Your task to perform on an android device: Go to Android settings Image 0: 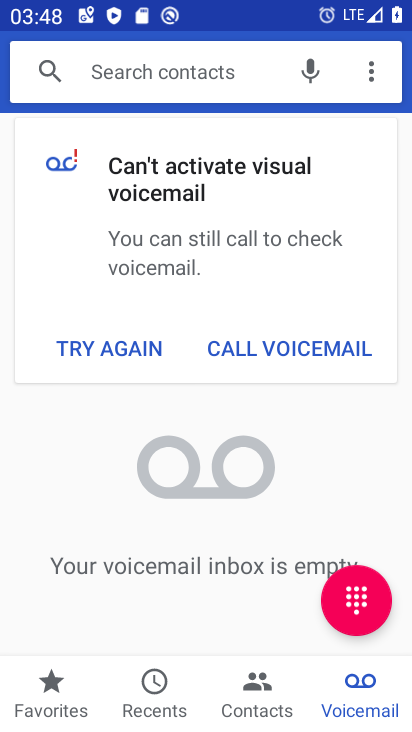
Step 0: press home button
Your task to perform on an android device: Go to Android settings Image 1: 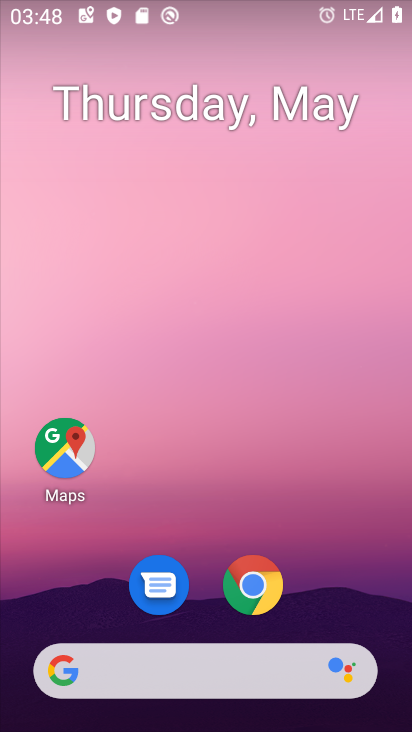
Step 1: drag from (199, 501) to (264, 39)
Your task to perform on an android device: Go to Android settings Image 2: 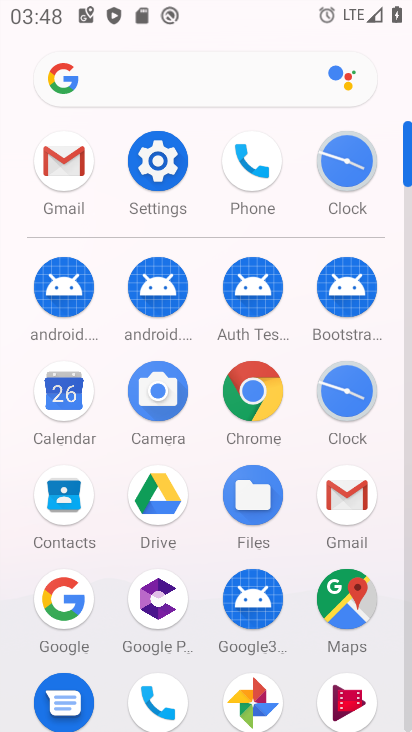
Step 2: click (152, 173)
Your task to perform on an android device: Go to Android settings Image 3: 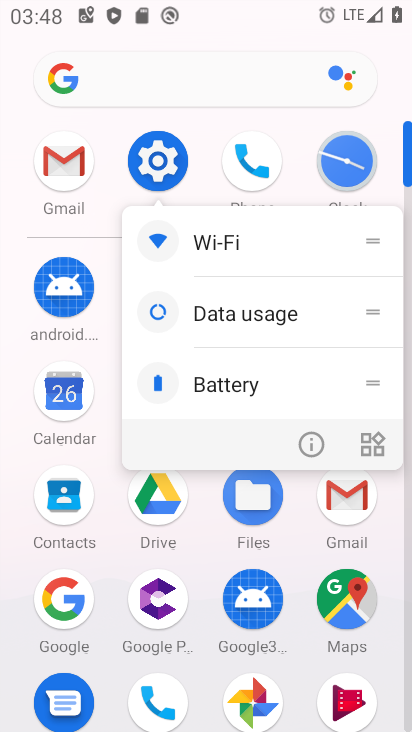
Step 3: click (161, 152)
Your task to perform on an android device: Go to Android settings Image 4: 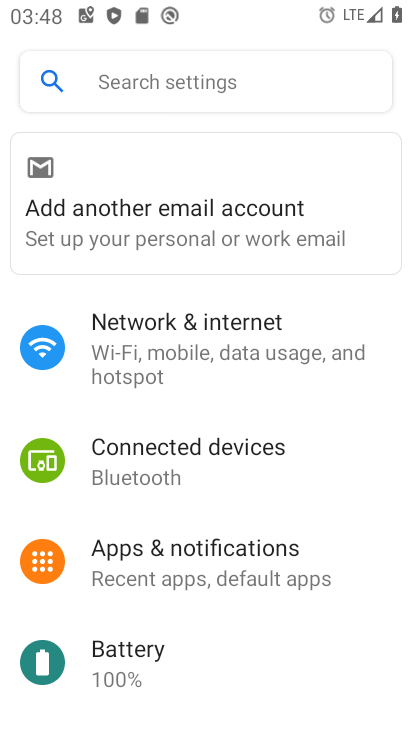
Step 4: drag from (216, 648) to (290, 79)
Your task to perform on an android device: Go to Android settings Image 5: 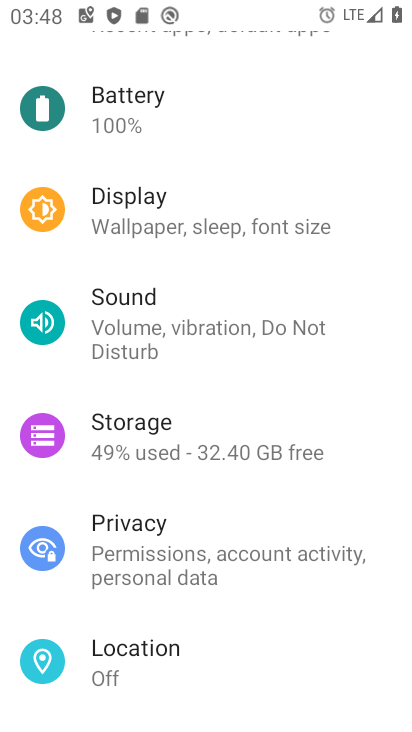
Step 5: drag from (220, 571) to (241, 117)
Your task to perform on an android device: Go to Android settings Image 6: 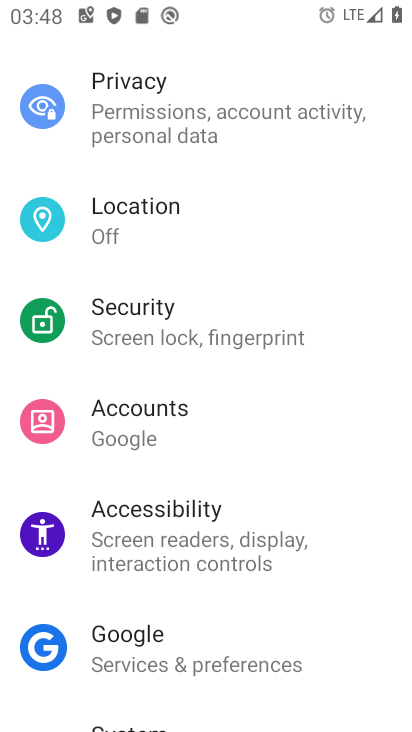
Step 6: drag from (173, 570) to (200, 136)
Your task to perform on an android device: Go to Android settings Image 7: 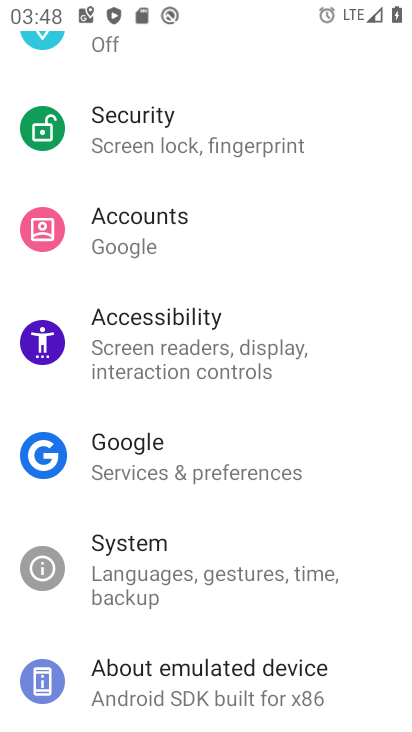
Step 7: click (236, 674)
Your task to perform on an android device: Go to Android settings Image 8: 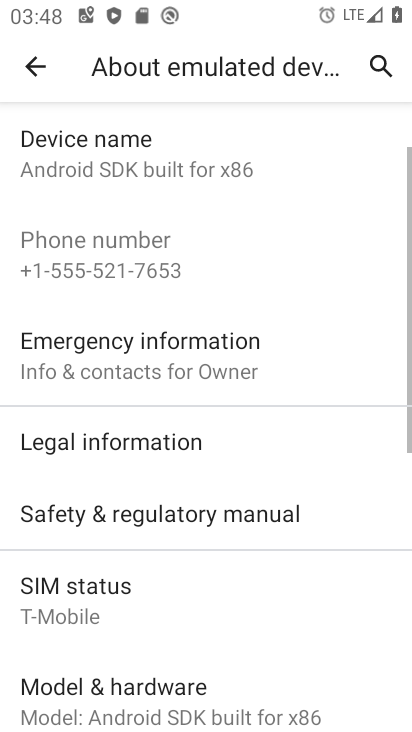
Step 8: task complete